Your task to perform on an android device: What is the recent news? Image 0: 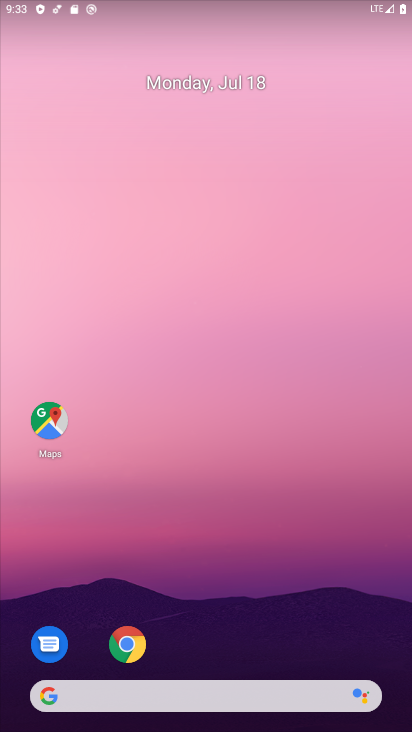
Step 0: drag from (2, 249) to (411, 385)
Your task to perform on an android device: What is the recent news? Image 1: 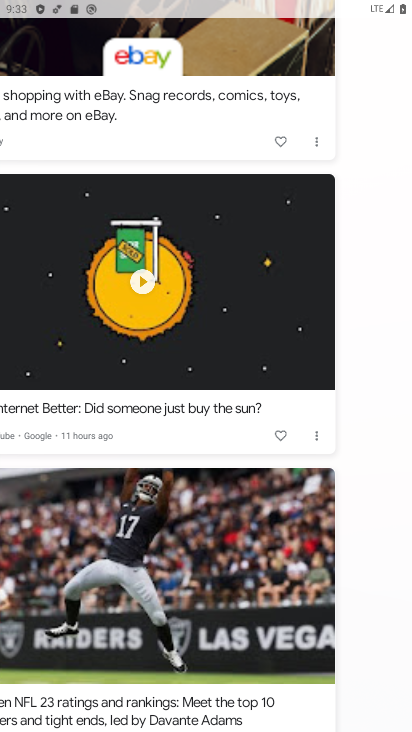
Step 1: task complete